Your task to perform on an android device: change notifications settings Image 0: 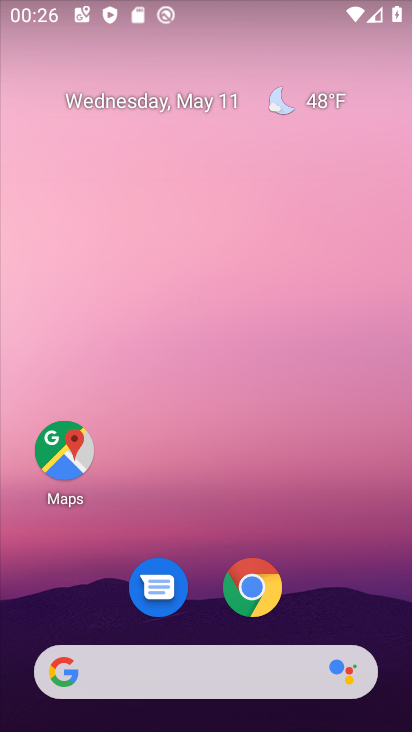
Step 0: drag from (348, 516) to (255, 10)
Your task to perform on an android device: change notifications settings Image 1: 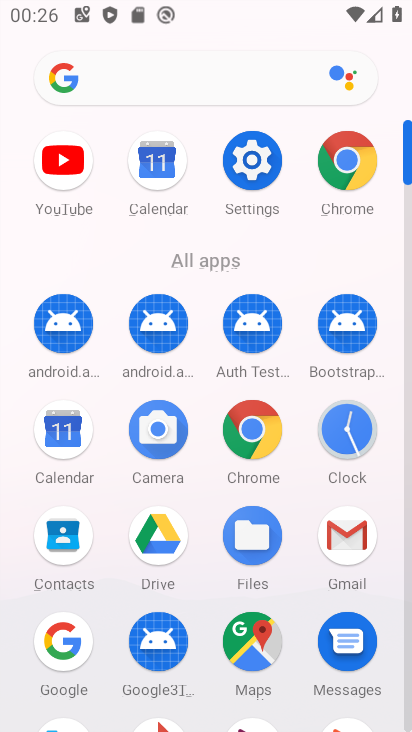
Step 1: click (256, 174)
Your task to perform on an android device: change notifications settings Image 2: 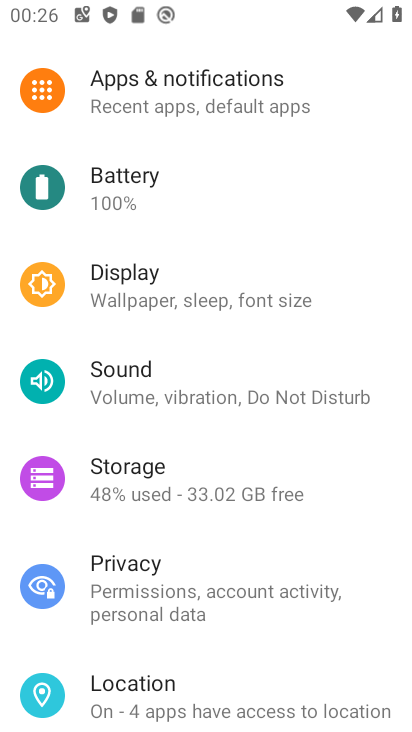
Step 2: click (146, 85)
Your task to perform on an android device: change notifications settings Image 3: 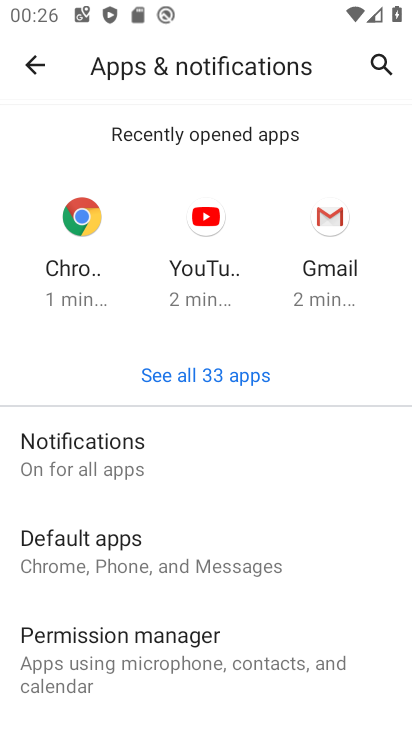
Step 3: click (130, 446)
Your task to perform on an android device: change notifications settings Image 4: 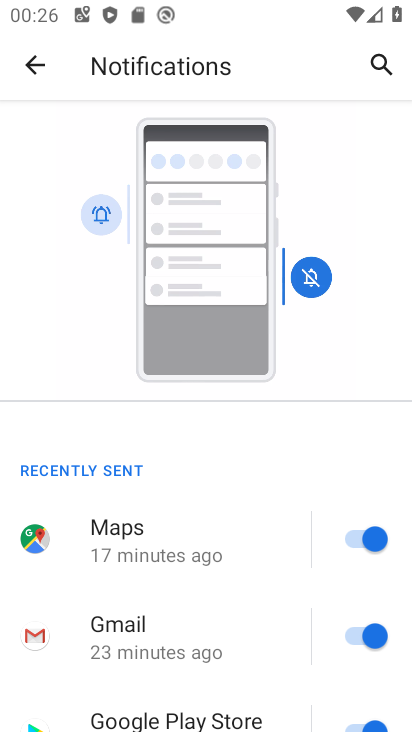
Step 4: drag from (221, 622) to (173, 380)
Your task to perform on an android device: change notifications settings Image 5: 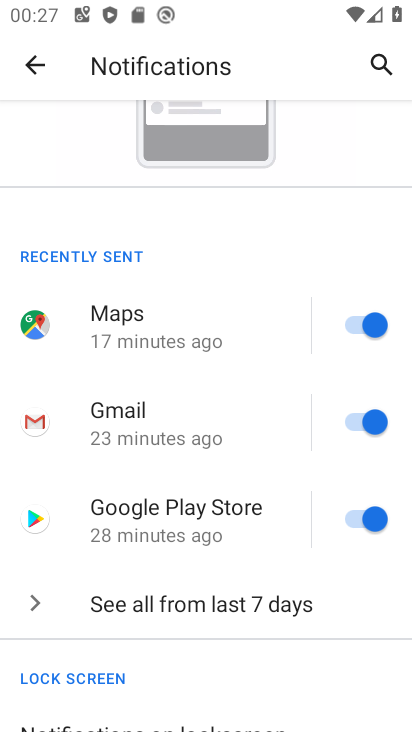
Step 5: drag from (230, 641) to (202, 487)
Your task to perform on an android device: change notifications settings Image 6: 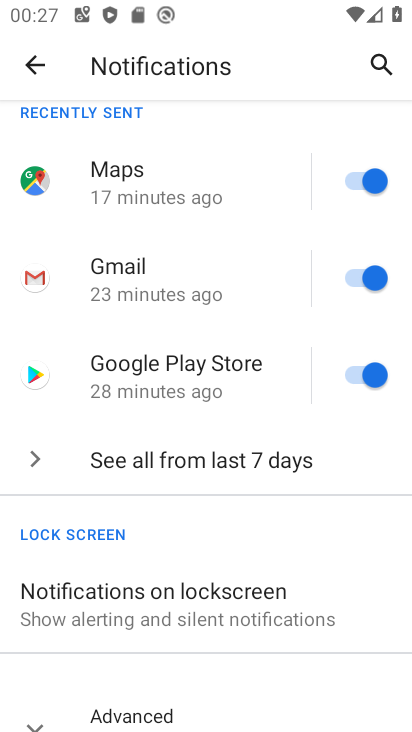
Step 6: click (355, 370)
Your task to perform on an android device: change notifications settings Image 7: 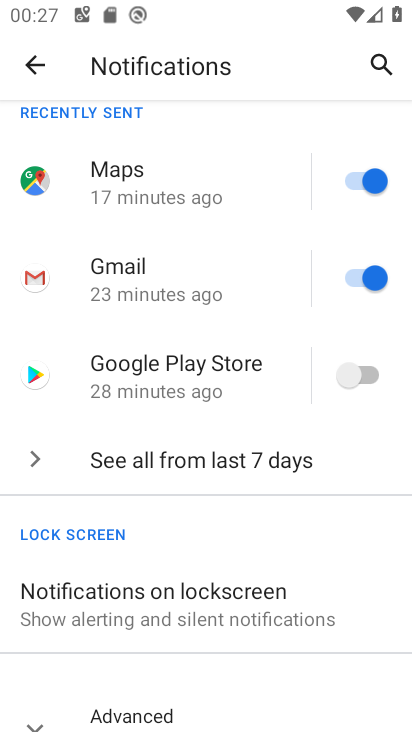
Step 7: task complete